Your task to perform on an android device: open chrome privacy settings Image 0: 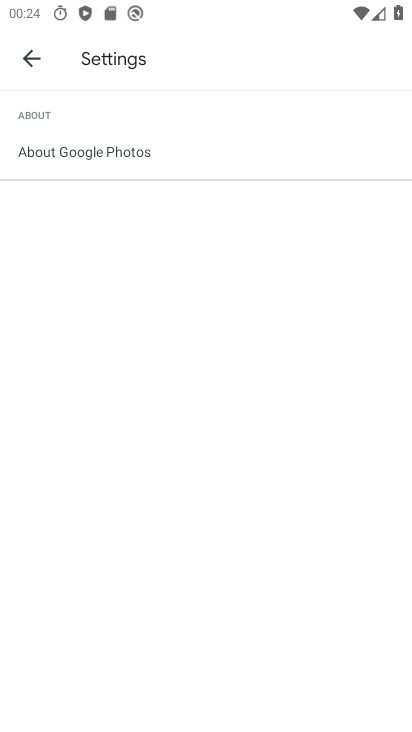
Step 0: press back button
Your task to perform on an android device: open chrome privacy settings Image 1: 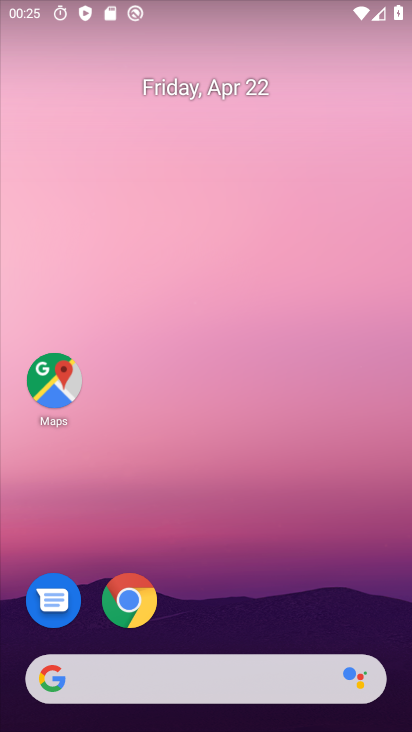
Step 1: click (141, 607)
Your task to perform on an android device: open chrome privacy settings Image 2: 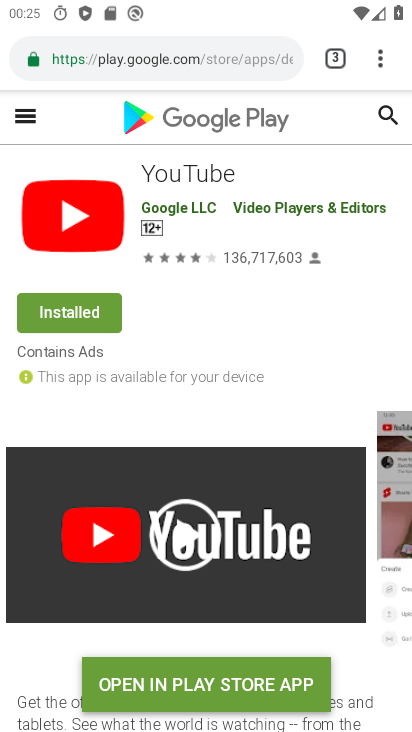
Step 2: click (386, 50)
Your task to perform on an android device: open chrome privacy settings Image 3: 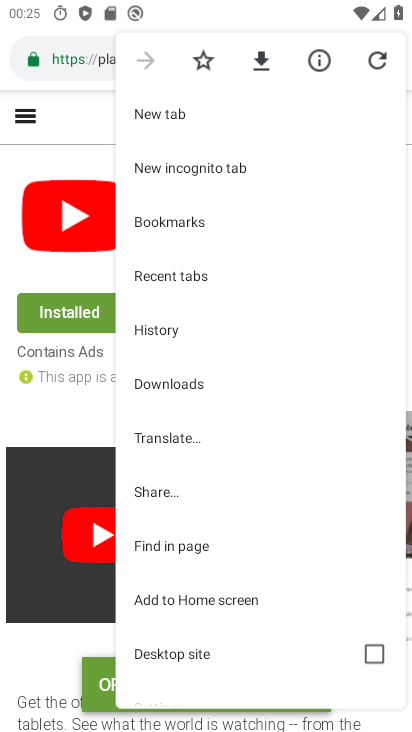
Step 3: drag from (195, 538) to (219, 204)
Your task to perform on an android device: open chrome privacy settings Image 4: 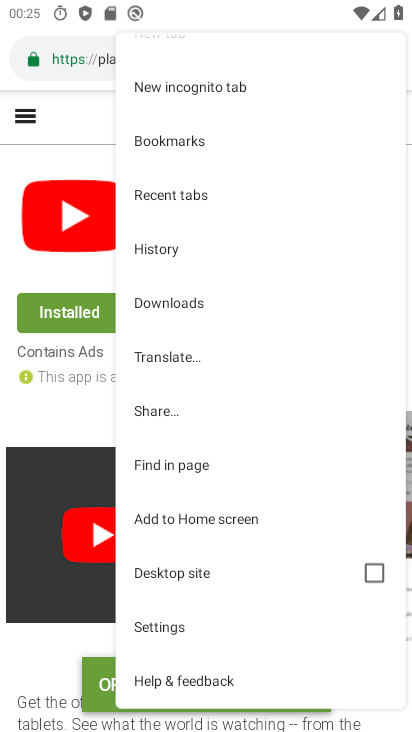
Step 4: click (191, 630)
Your task to perform on an android device: open chrome privacy settings Image 5: 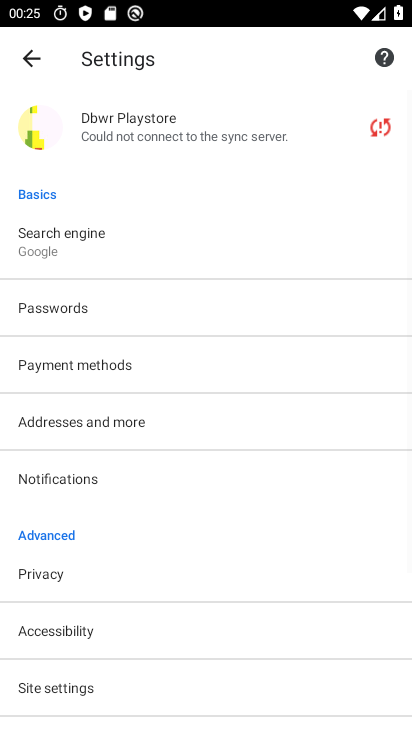
Step 5: click (87, 575)
Your task to perform on an android device: open chrome privacy settings Image 6: 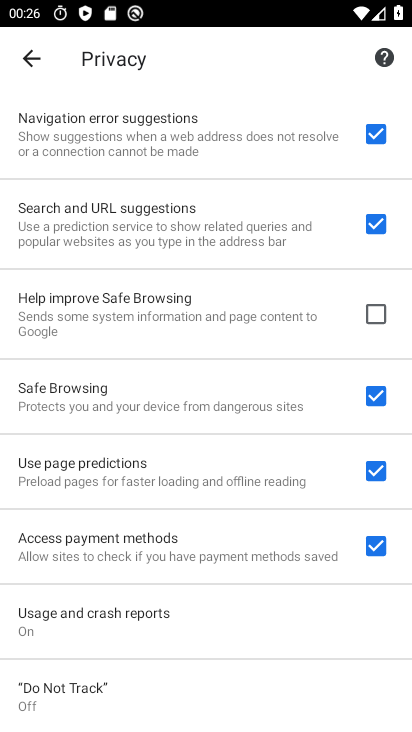
Step 6: task complete